Your task to perform on an android device: open app "Spotify: Music and Podcasts" (install if not already installed) Image 0: 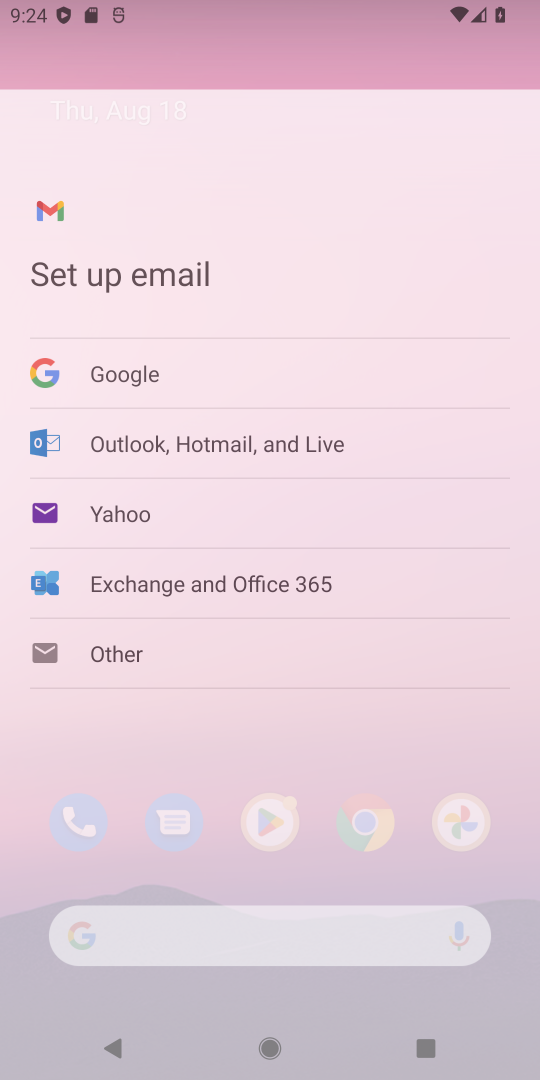
Step 0: click (341, 930)
Your task to perform on an android device: open app "Spotify: Music and Podcasts" (install if not already installed) Image 1: 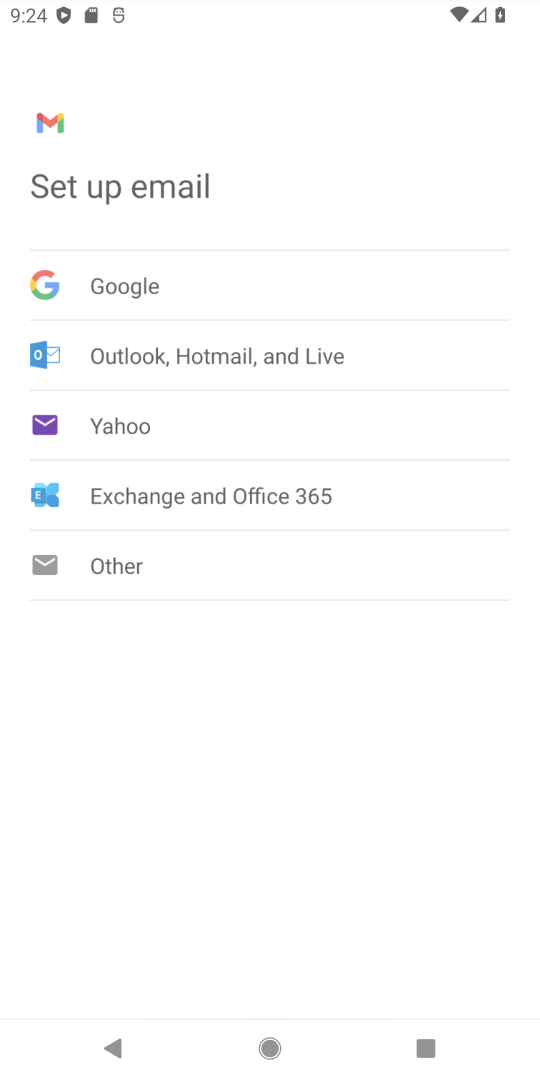
Step 1: press home button
Your task to perform on an android device: open app "Spotify: Music and Podcasts" (install if not already installed) Image 2: 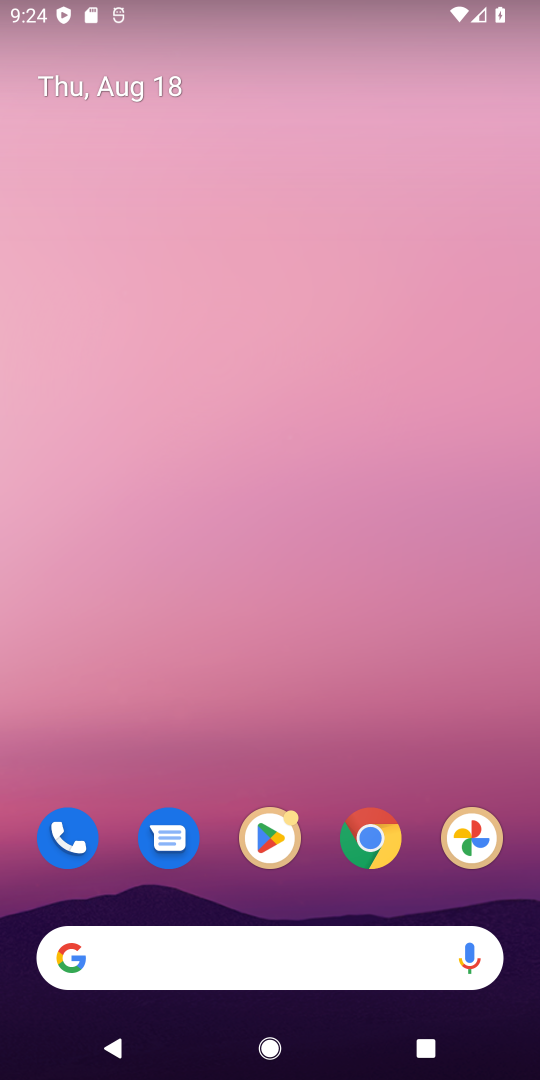
Step 2: click (365, 945)
Your task to perform on an android device: open app "Spotify: Music and Podcasts" (install if not already installed) Image 3: 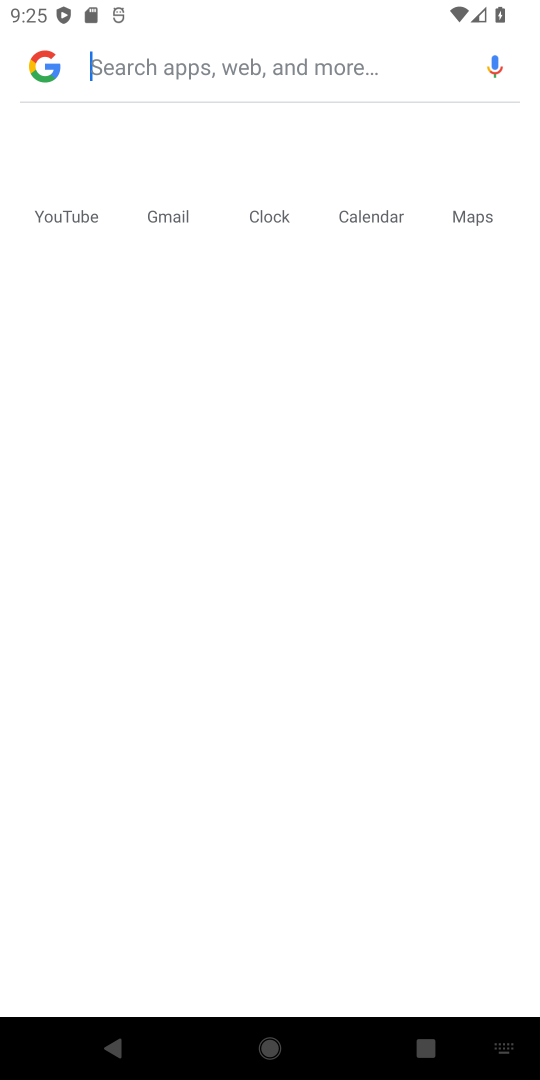
Step 3: type "spotify"
Your task to perform on an android device: open app "Spotify: Music and Podcasts" (install if not already installed) Image 4: 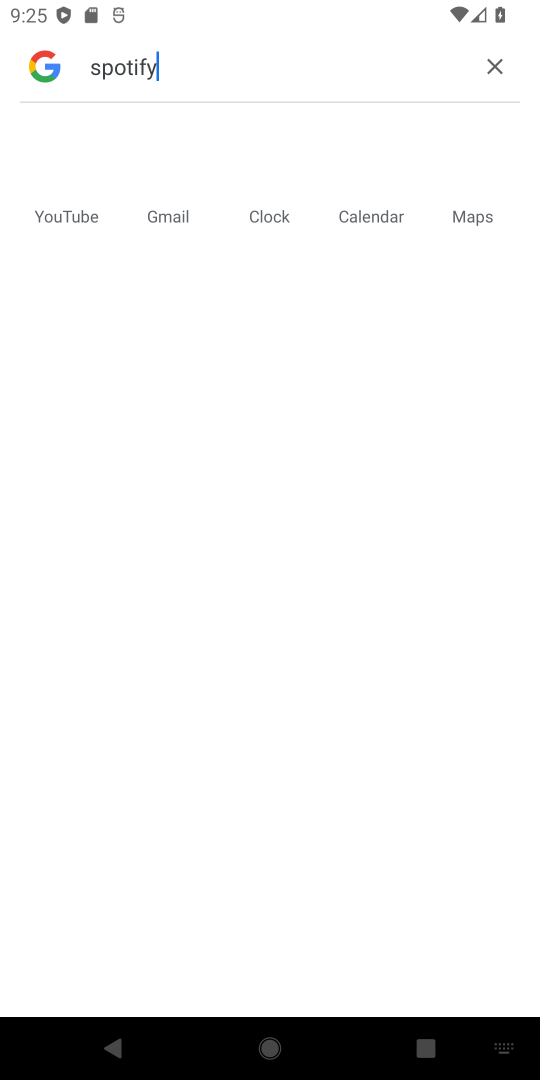
Step 4: click (139, 69)
Your task to perform on an android device: open app "Spotify: Music and Podcasts" (install if not already installed) Image 5: 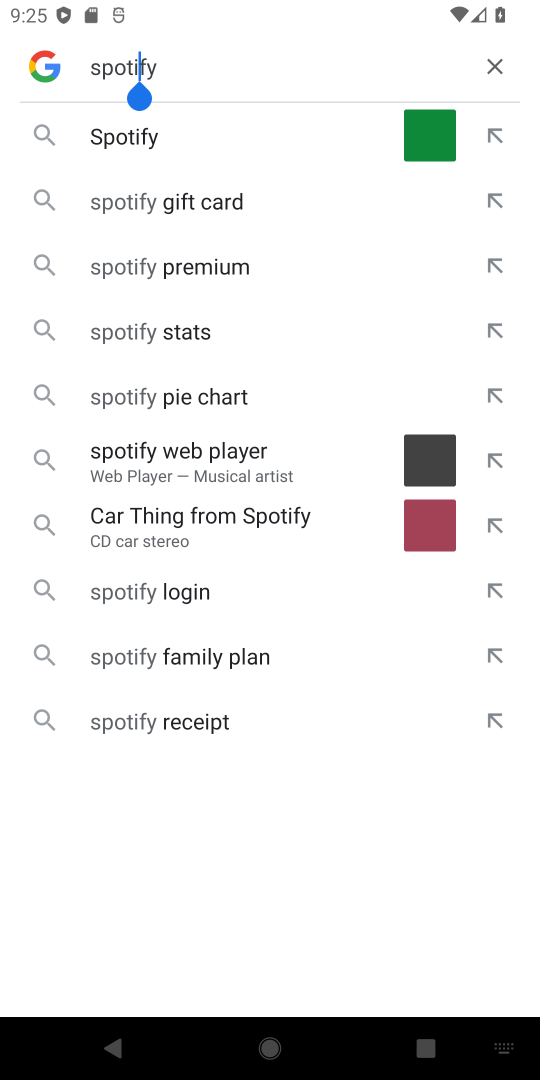
Step 5: task complete